Your task to perform on an android device: Find coffee shops on Maps Image 0: 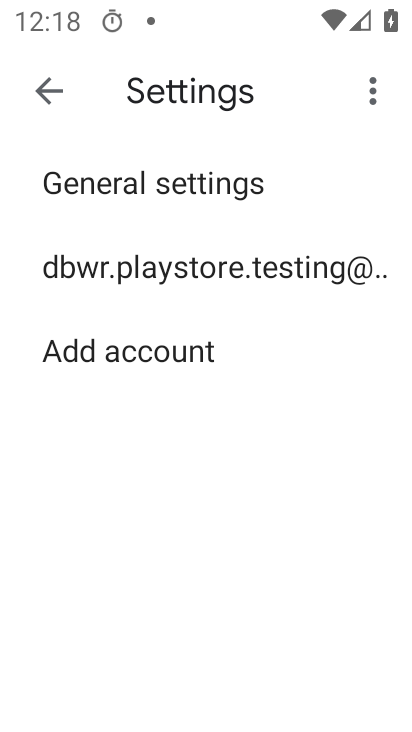
Step 0: press home button
Your task to perform on an android device: Find coffee shops on Maps Image 1: 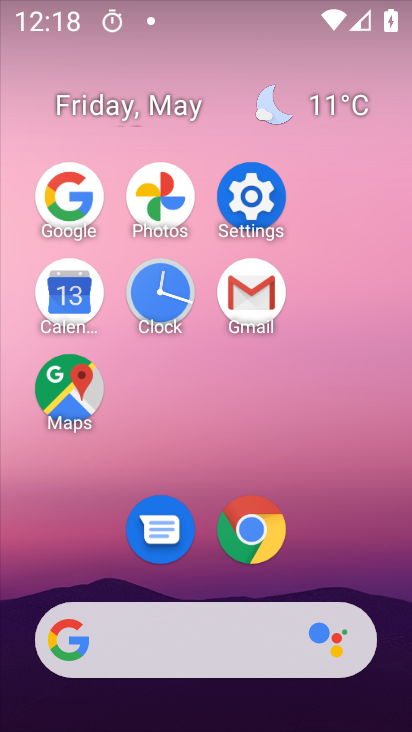
Step 1: click (83, 393)
Your task to perform on an android device: Find coffee shops on Maps Image 2: 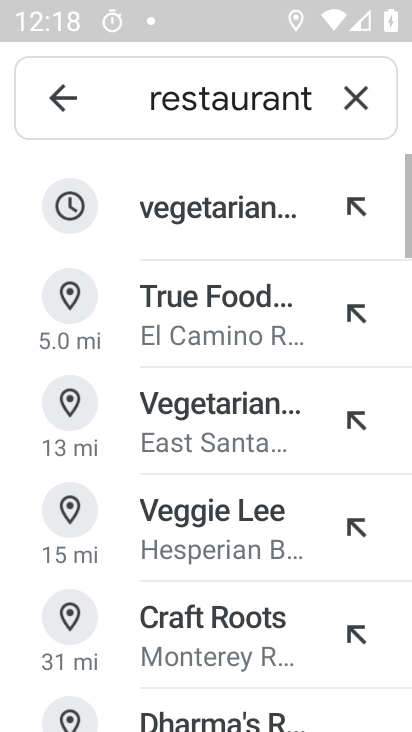
Step 2: click (363, 115)
Your task to perform on an android device: Find coffee shops on Maps Image 3: 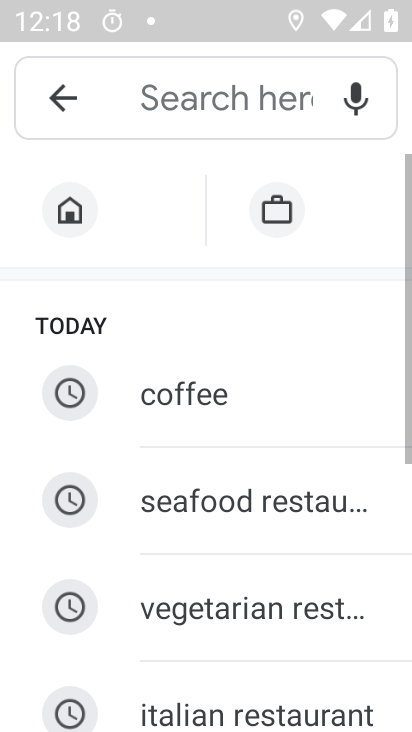
Step 3: click (209, 98)
Your task to perform on an android device: Find coffee shops on Maps Image 4: 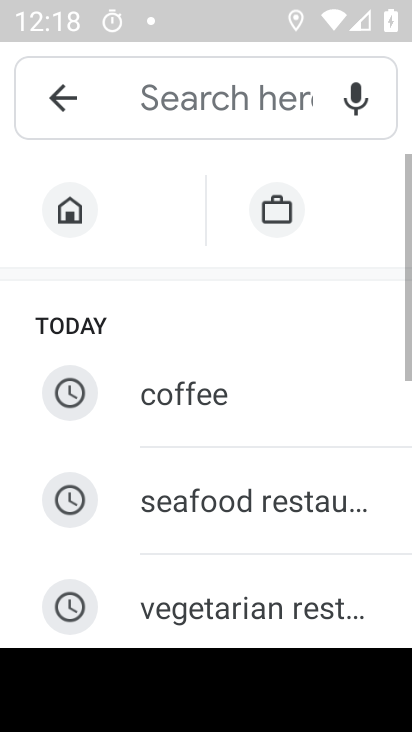
Step 4: drag from (263, 527) to (247, 105)
Your task to perform on an android device: Find coffee shops on Maps Image 5: 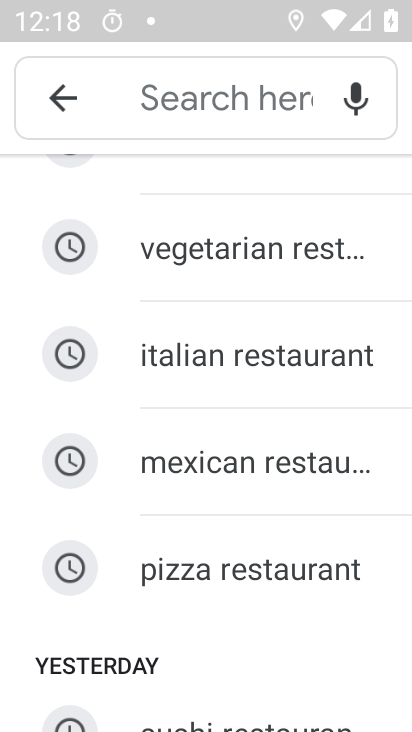
Step 5: drag from (245, 647) to (247, 196)
Your task to perform on an android device: Find coffee shops on Maps Image 6: 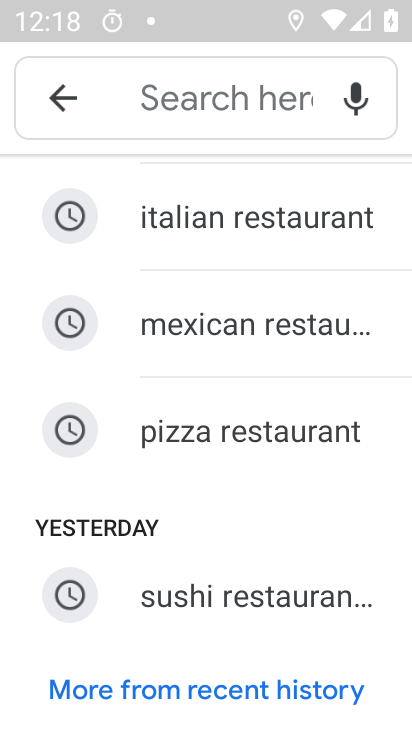
Step 6: click (216, 99)
Your task to perform on an android device: Find coffee shops on Maps Image 7: 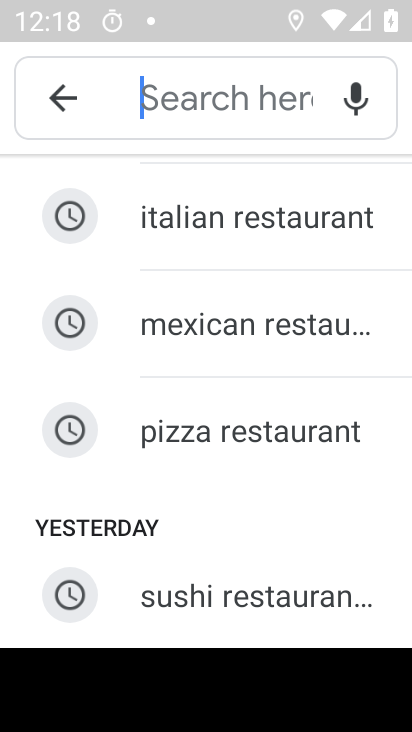
Step 7: type "coffee shops"
Your task to perform on an android device: Find coffee shops on Maps Image 8: 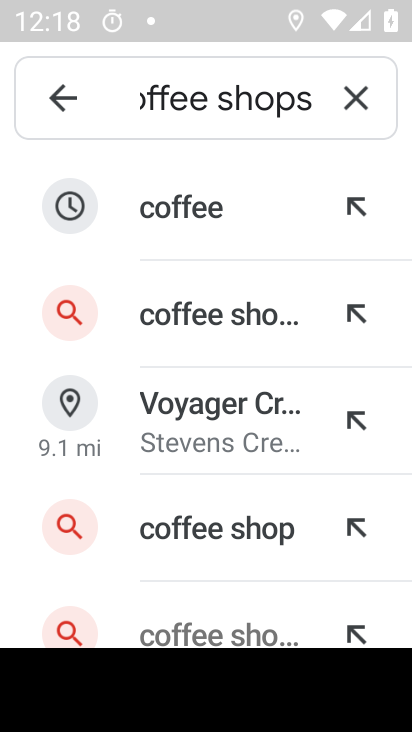
Step 8: click (223, 306)
Your task to perform on an android device: Find coffee shops on Maps Image 9: 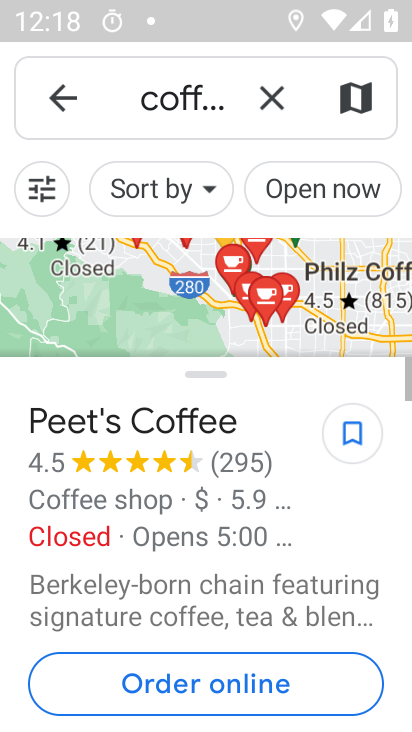
Step 9: task complete